Your task to perform on an android device: change your default location settings in chrome Image 0: 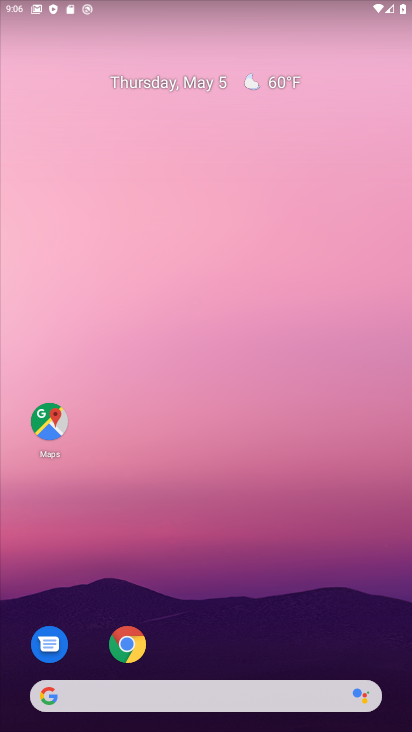
Step 0: drag from (369, 631) to (289, 72)
Your task to perform on an android device: change your default location settings in chrome Image 1: 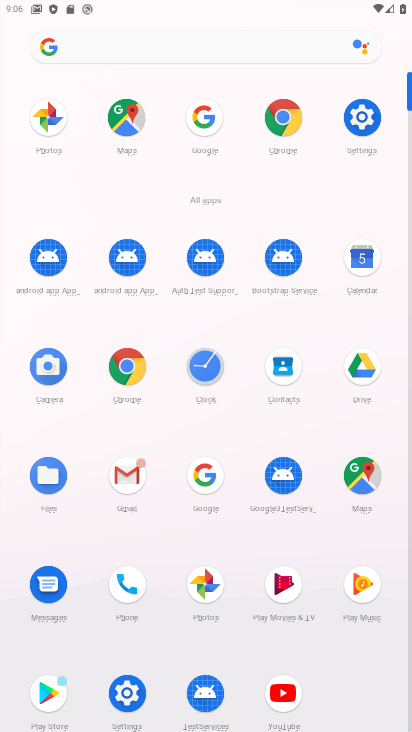
Step 1: click (276, 113)
Your task to perform on an android device: change your default location settings in chrome Image 2: 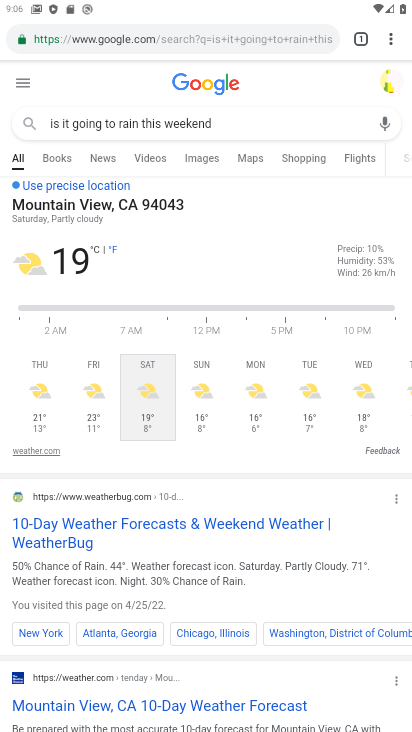
Step 2: drag from (392, 40) to (290, 433)
Your task to perform on an android device: change your default location settings in chrome Image 3: 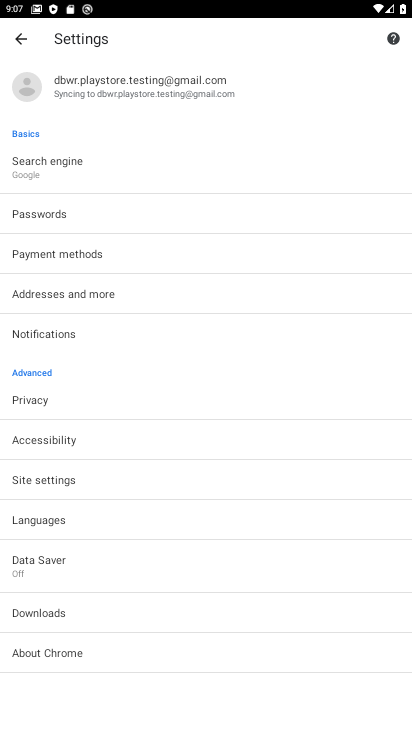
Step 3: click (66, 474)
Your task to perform on an android device: change your default location settings in chrome Image 4: 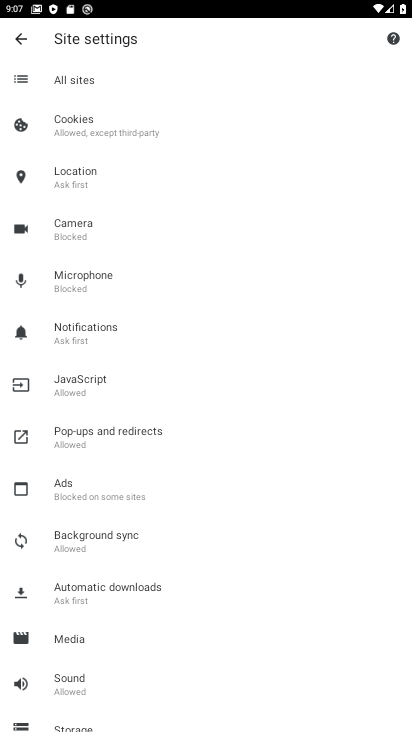
Step 4: click (75, 182)
Your task to perform on an android device: change your default location settings in chrome Image 5: 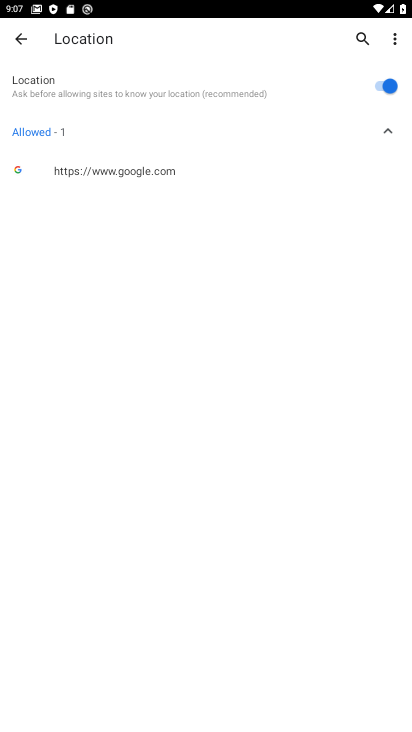
Step 5: click (378, 90)
Your task to perform on an android device: change your default location settings in chrome Image 6: 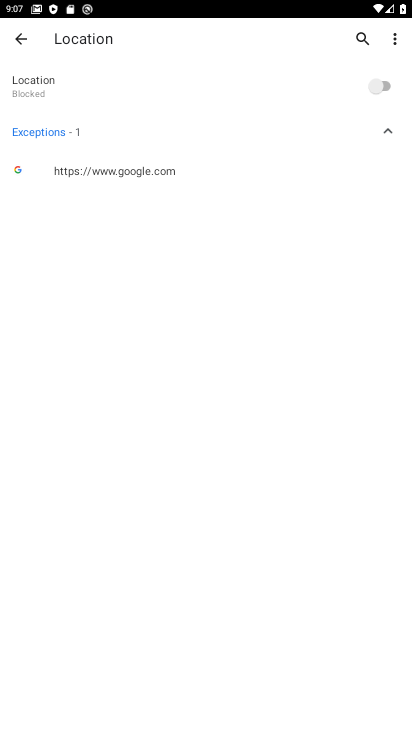
Step 6: task complete